Your task to perform on an android device: see creations saved in the google photos Image 0: 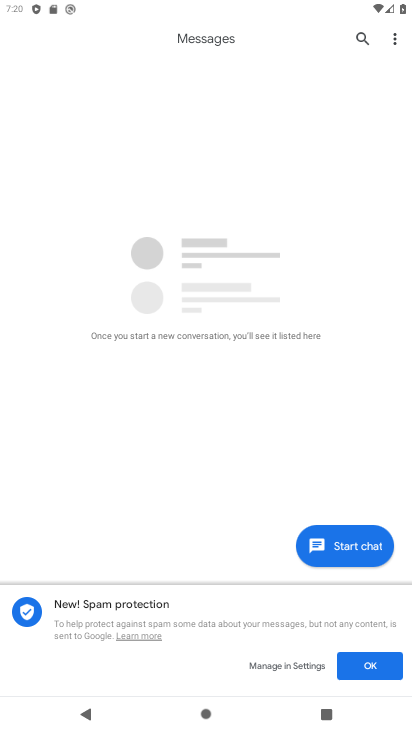
Step 0: press home button
Your task to perform on an android device: see creations saved in the google photos Image 1: 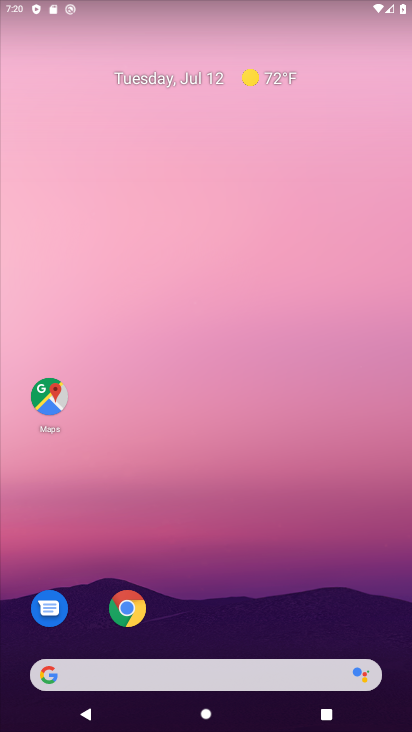
Step 1: drag from (217, 549) to (152, 131)
Your task to perform on an android device: see creations saved in the google photos Image 2: 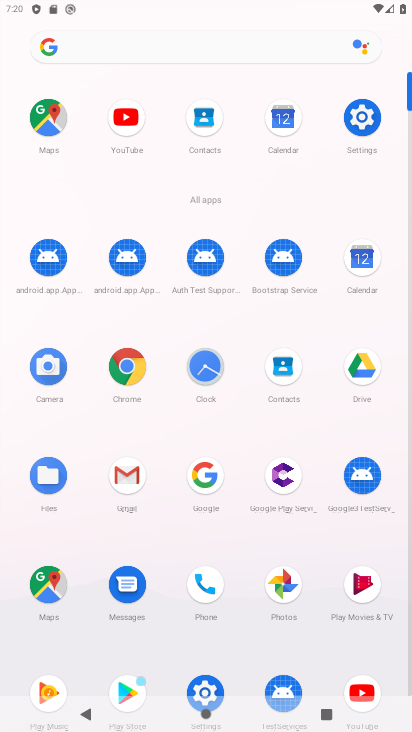
Step 2: click (284, 586)
Your task to perform on an android device: see creations saved in the google photos Image 3: 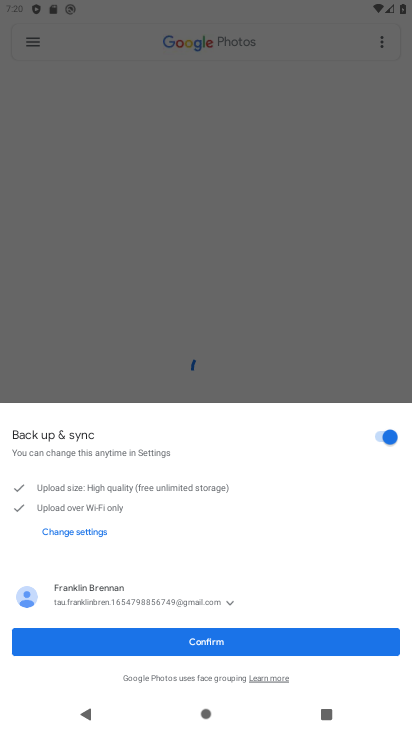
Step 3: click (219, 644)
Your task to perform on an android device: see creations saved in the google photos Image 4: 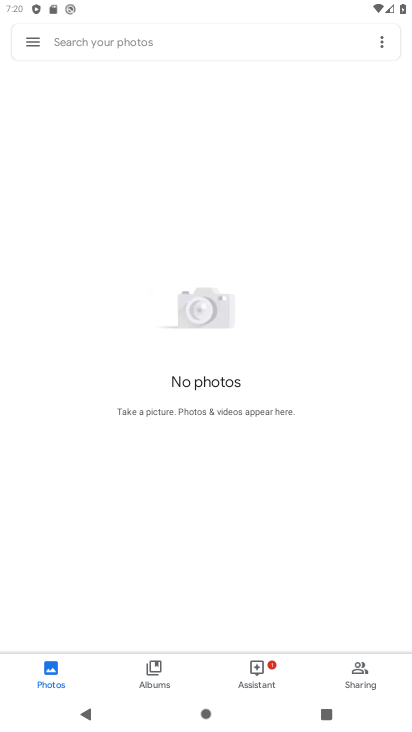
Step 4: click (84, 41)
Your task to perform on an android device: see creations saved in the google photos Image 5: 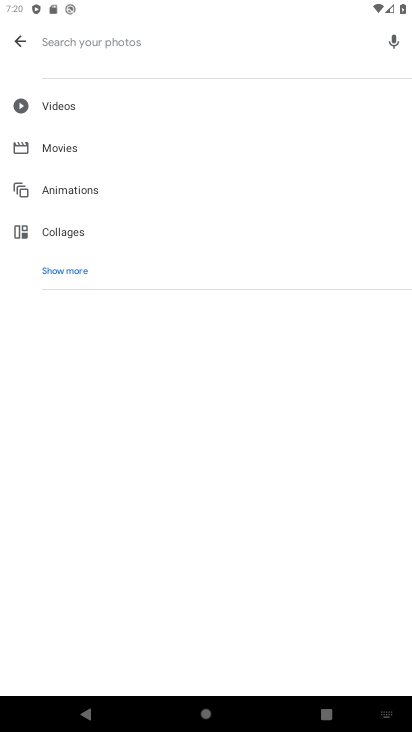
Step 5: click (64, 273)
Your task to perform on an android device: see creations saved in the google photos Image 6: 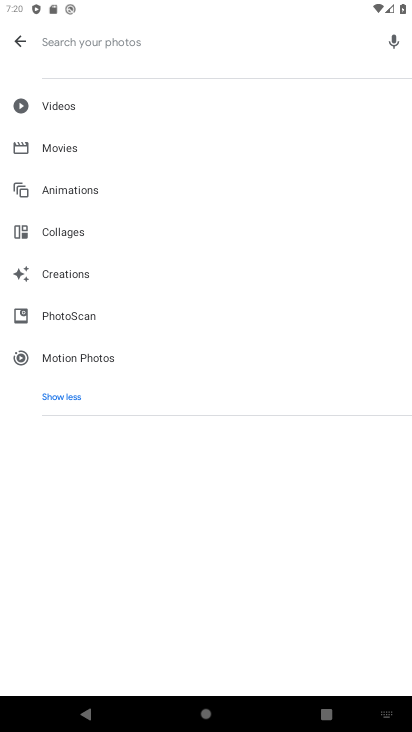
Step 6: click (71, 273)
Your task to perform on an android device: see creations saved in the google photos Image 7: 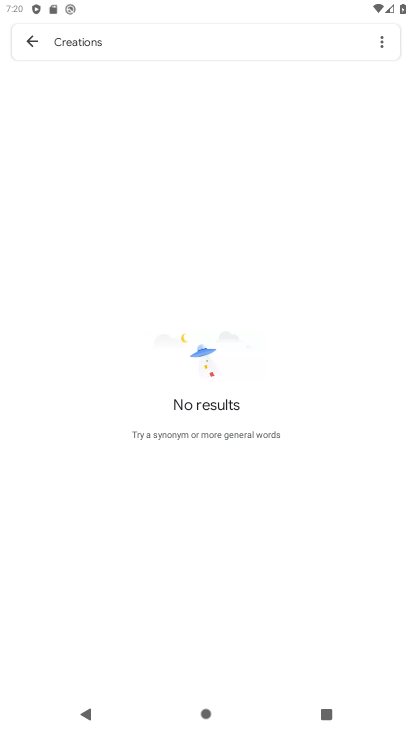
Step 7: task complete